Your task to perform on an android device: Go to Android settings Image 0: 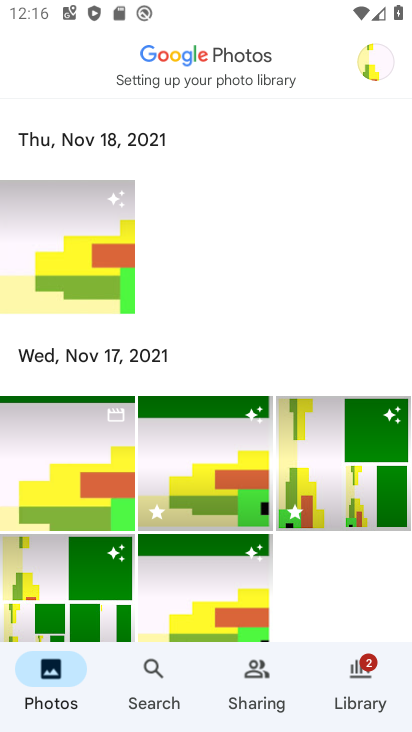
Step 0: press home button
Your task to perform on an android device: Go to Android settings Image 1: 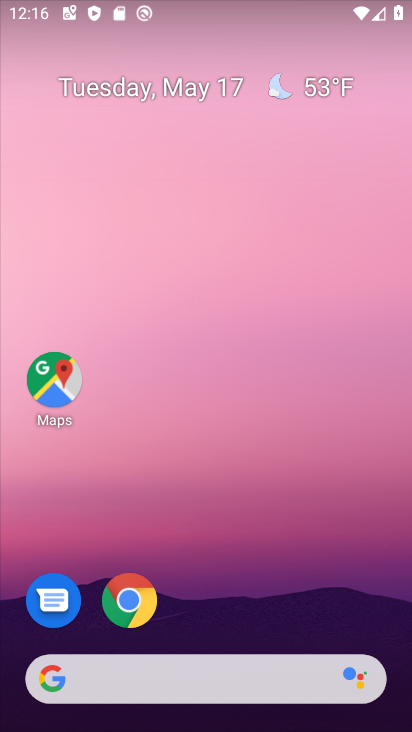
Step 1: drag from (223, 608) to (198, 362)
Your task to perform on an android device: Go to Android settings Image 2: 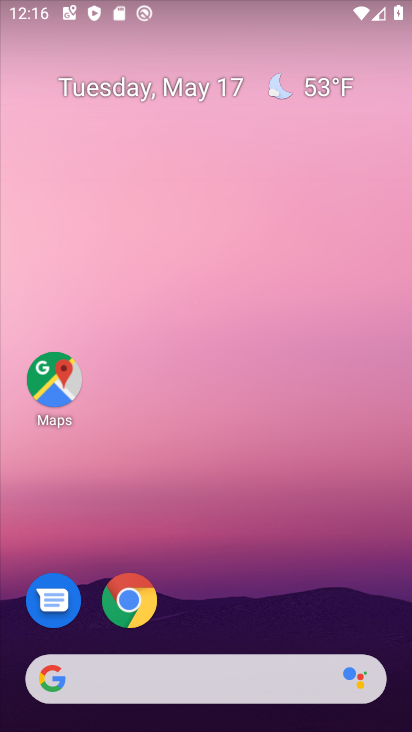
Step 2: drag from (261, 631) to (259, 304)
Your task to perform on an android device: Go to Android settings Image 3: 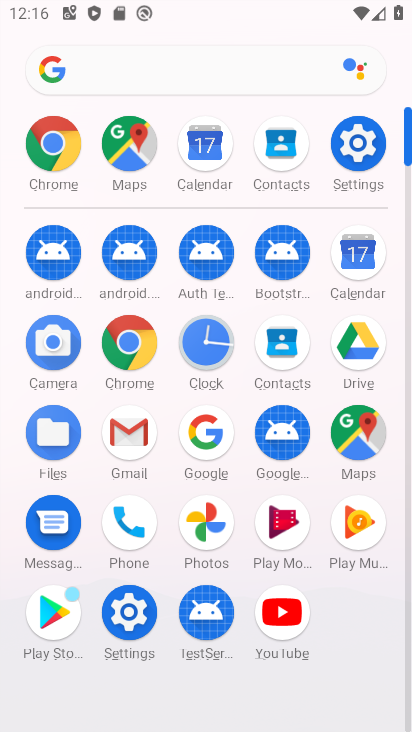
Step 3: click (354, 143)
Your task to perform on an android device: Go to Android settings Image 4: 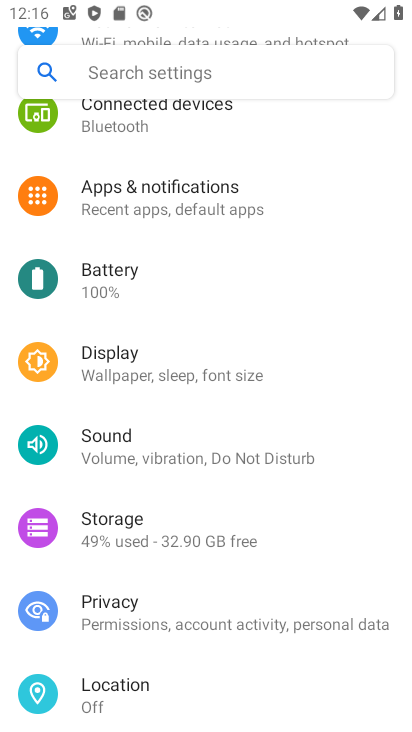
Step 4: task complete